Your task to perform on an android device: add a contact in the contacts app Image 0: 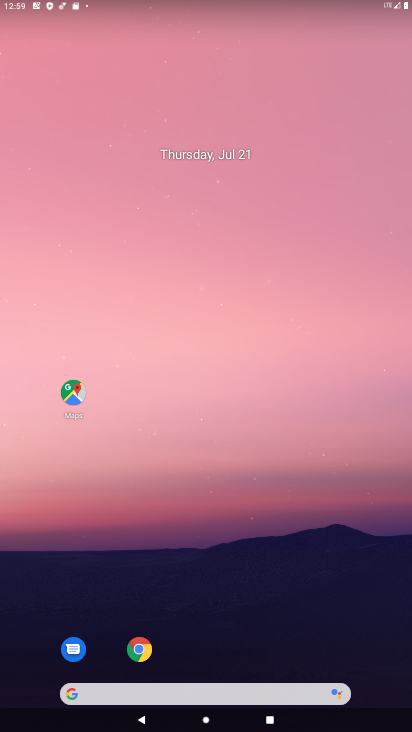
Step 0: drag from (242, 694) to (287, 152)
Your task to perform on an android device: add a contact in the contacts app Image 1: 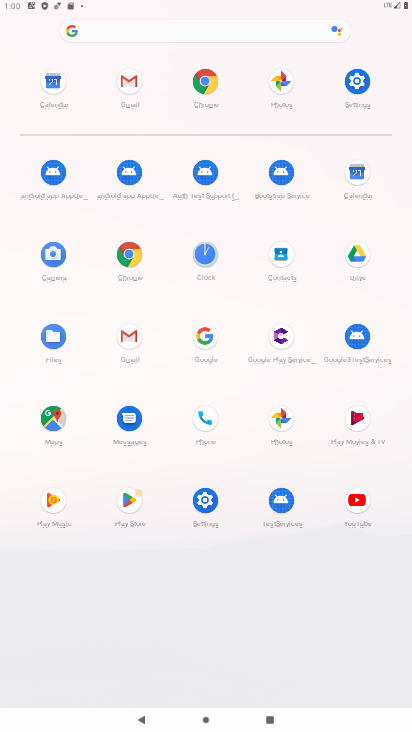
Step 1: click (279, 253)
Your task to perform on an android device: add a contact in the contacts app Image 2: 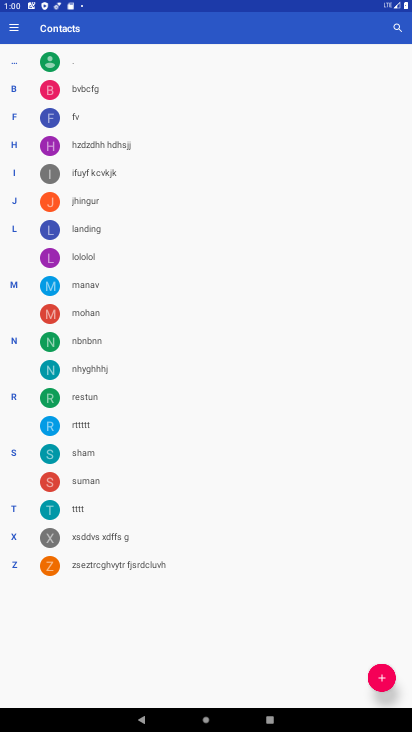
Step 2: click (382, 678)
Your task to perform on an android device: add a contact in the contacts app Image 3: 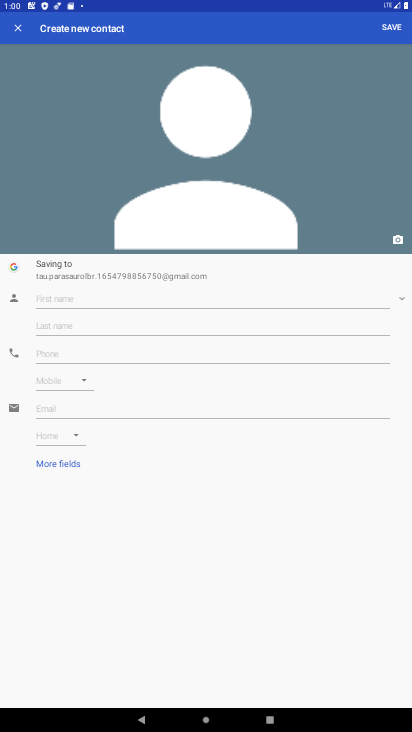
Step 3: click (81, 306)
Your task to perform on an android device: add a contact in the contacts app Image 4: 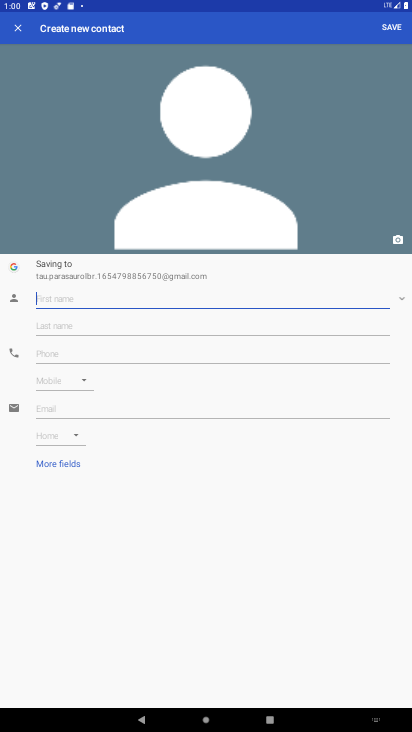
Step 4: type "mmmo"
Your task to perform on an android device: add a contact in the contacts app Image 5: 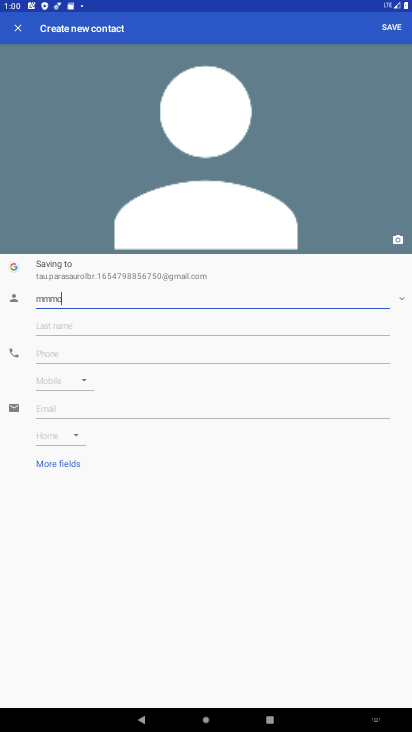
Step 5: type ""
Your task to perform on an android device: add a contact in the contacts app Image 6: 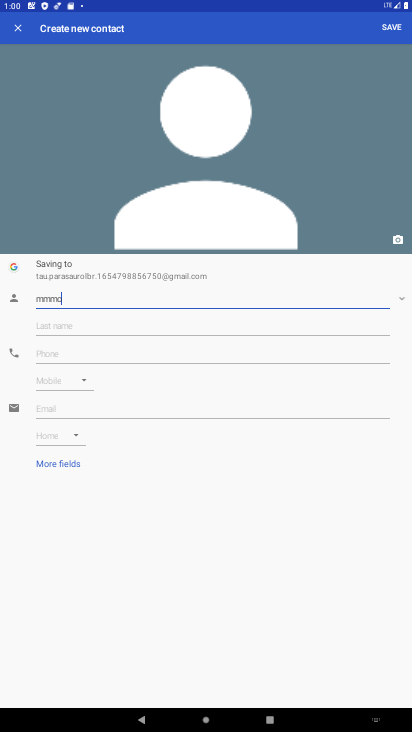
Step 6: click (102, 357)
Your task to perform on an android device: add a contact in the contacts app Image 7: 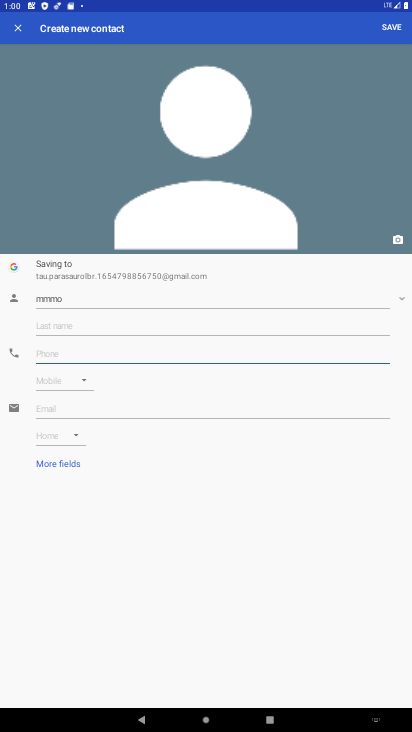
Step 7: type "76767676"
Your task to perform on an android device: add a contact in the contacts app Image 8: 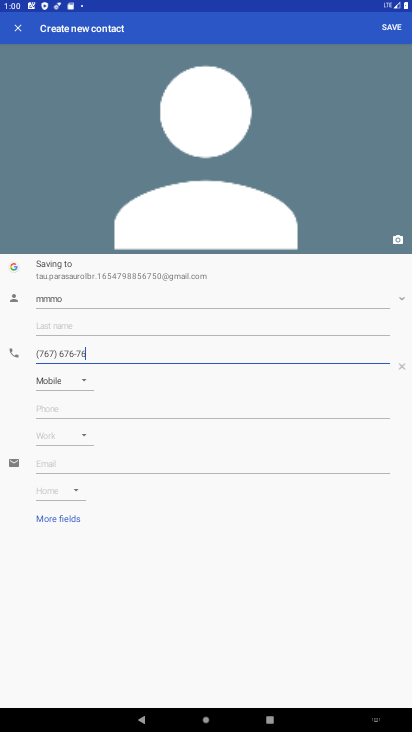
Step 8: type ""
Your task to perform on an android device: add a contact in the contacts app Image 9: 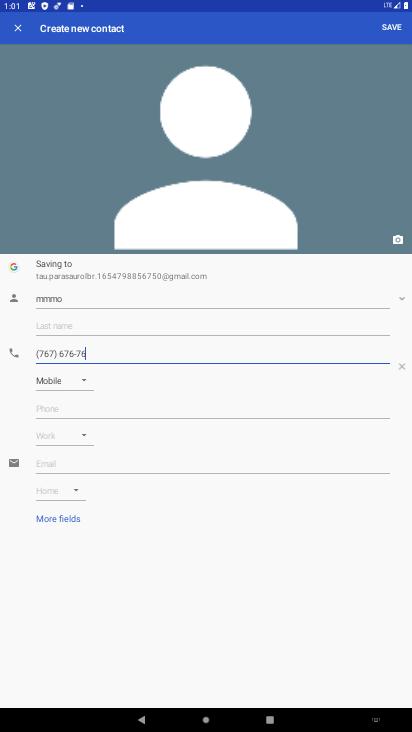
Step 9: click (391, 27)
Your task to perform on an android device: add a contact in the contacts app Image 10: 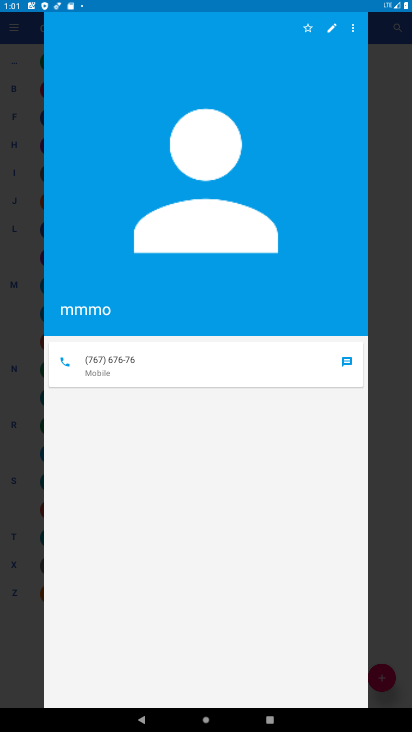
Step 10: task complete